Your task to perform on an android device: Open the Play Movies app and select the watchlist tab. Image 0: 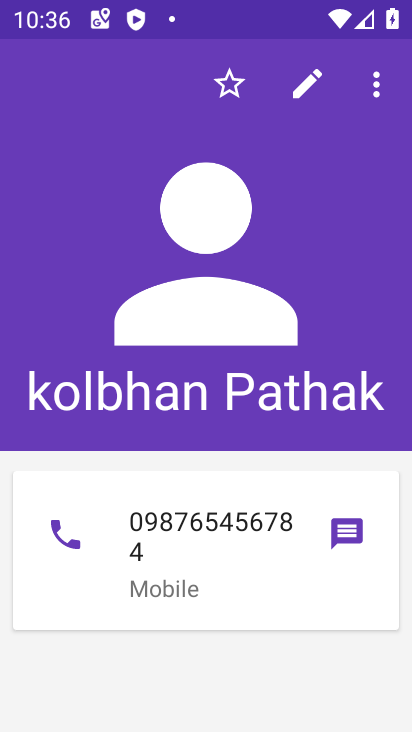
Step 0: press back button
Your task to perform on an android device: Open the Play Movies app and select the watchlist tab. Image 1: 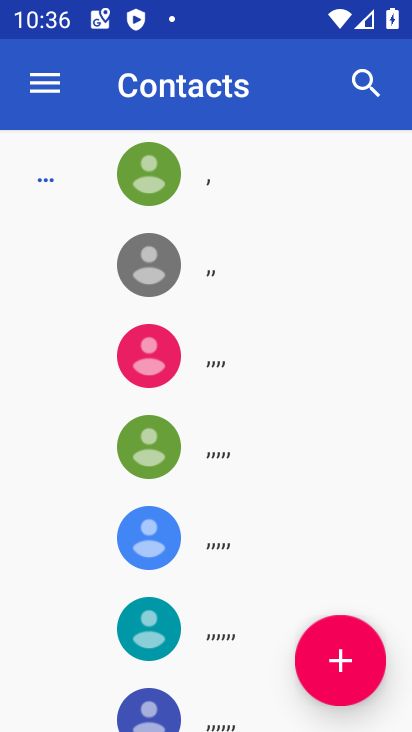
Step 1: press back button
Your task to perform on an android device: Open the Play Movies app and select the watchlist tab. Image 2: 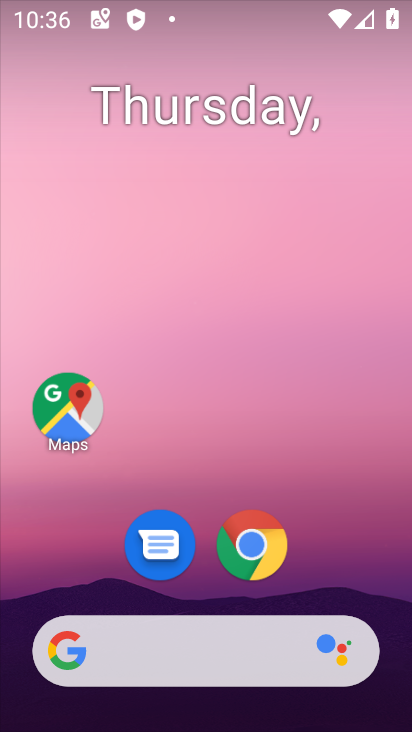
Step 2: drag from (338, 575) to (227, 127)
Your task to perform on an android device: Open the Play Movies app and select the watchlist tab. Image 3: 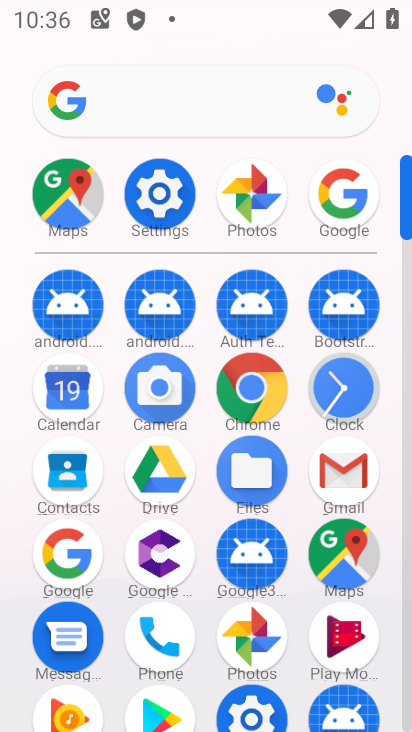
Step 3: click (347, 633)
Your task to perform on an android device: Open the Play Movies app and select the watchlist tab. Image 4: 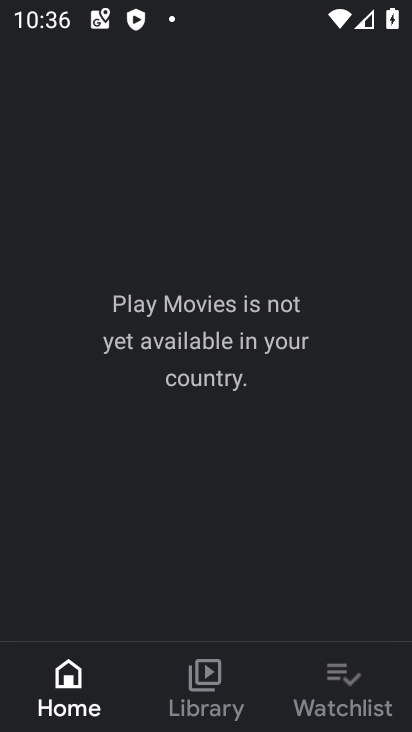
Step 4: click (340, 680)
Your task to perform on an android device: Open the Play Movies app and select the watchlist tab. Image 5: 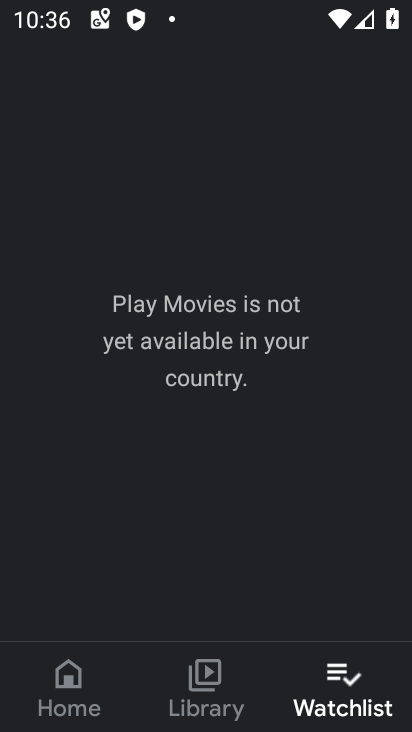
Step 5: task complete